Your task to perform on an android device: Open calendar and show me the first week of next month Image 0: 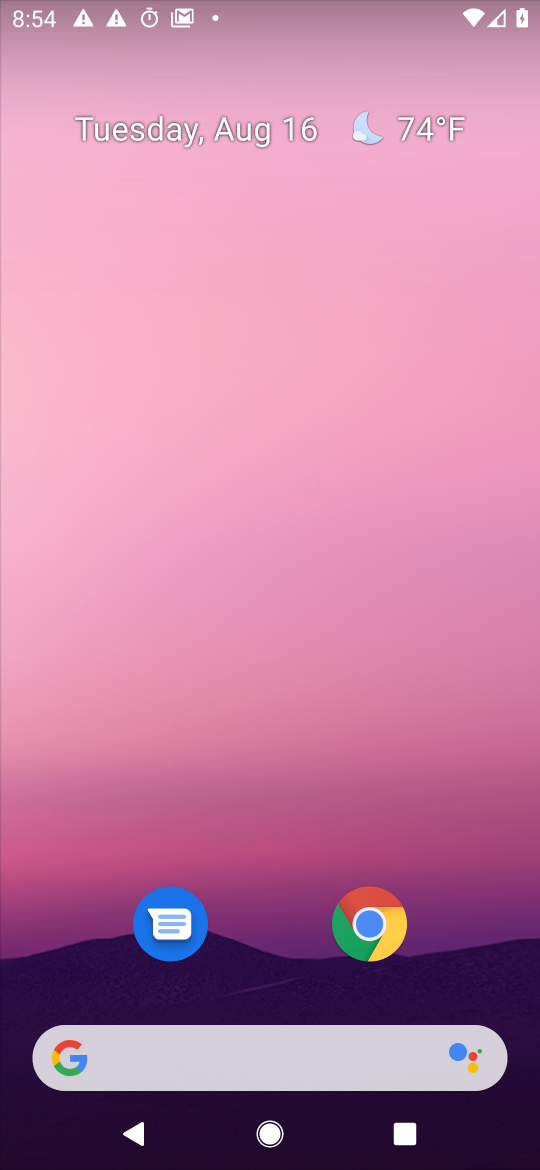
Step 0: drag from (284, 961) to (440, 46)
Your task to perform on an android device: Open calendar and show me the first week of next month Image 1: 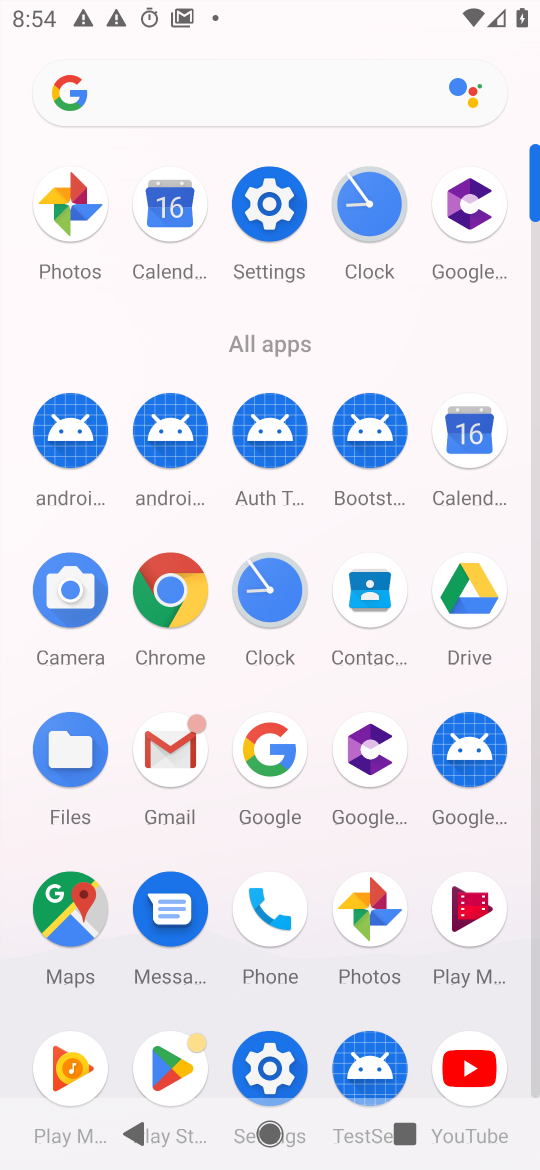
Step 1: click (478, 451)
Your task to perform on an android device: Open calendar and show me the first week of next month Image 2: 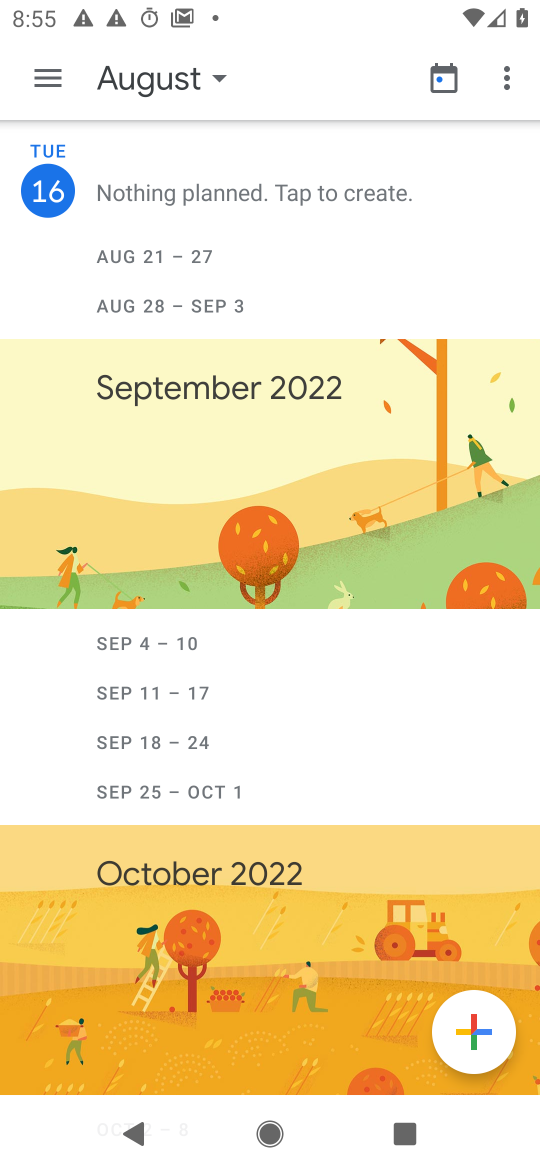
Step 2: click (192, 83)
Your task to perform on an android device: Open calendar and show me the first week of next month Image 3: 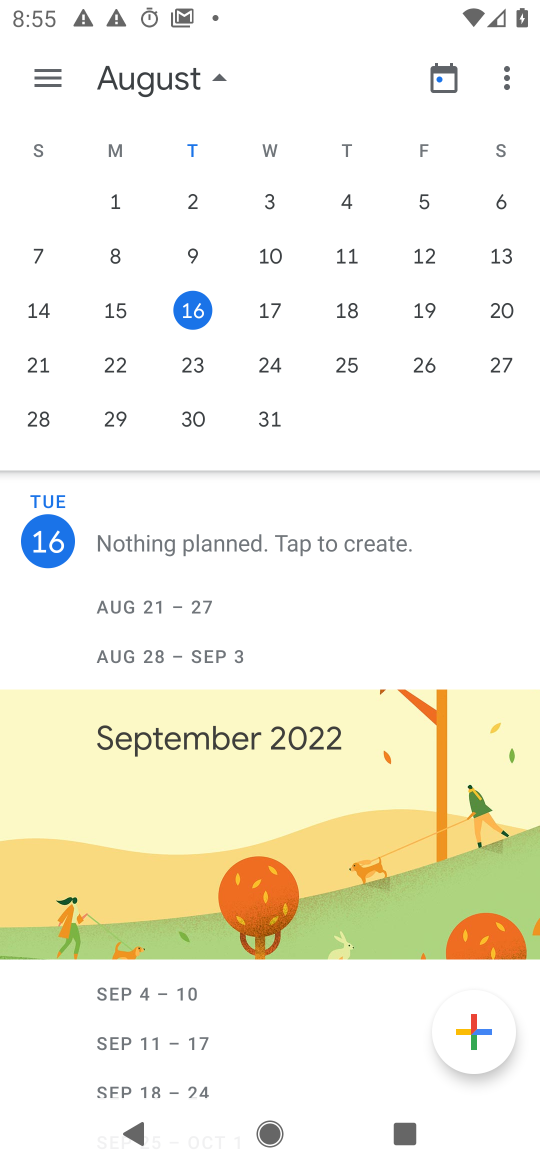
Step 3: drag from (499, 311) to (17, 315)
Your task to perform on an android device: Open calendar and show me the first week of next month Image 4: 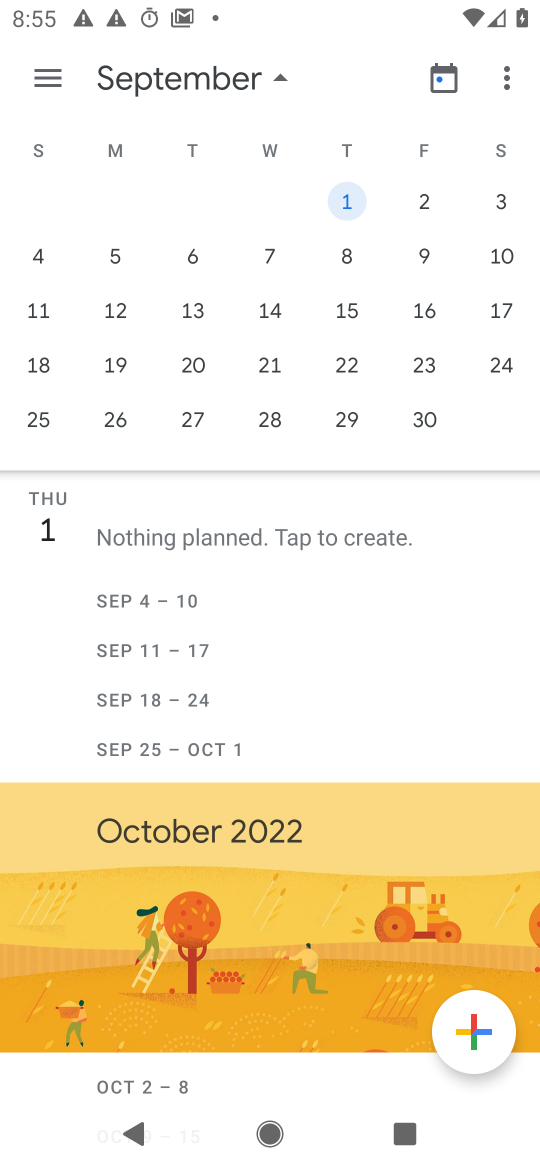
Step 4: click (352, 197)
Your task to perform on an android device: Open calendar and show me the first week of next month Image 5: 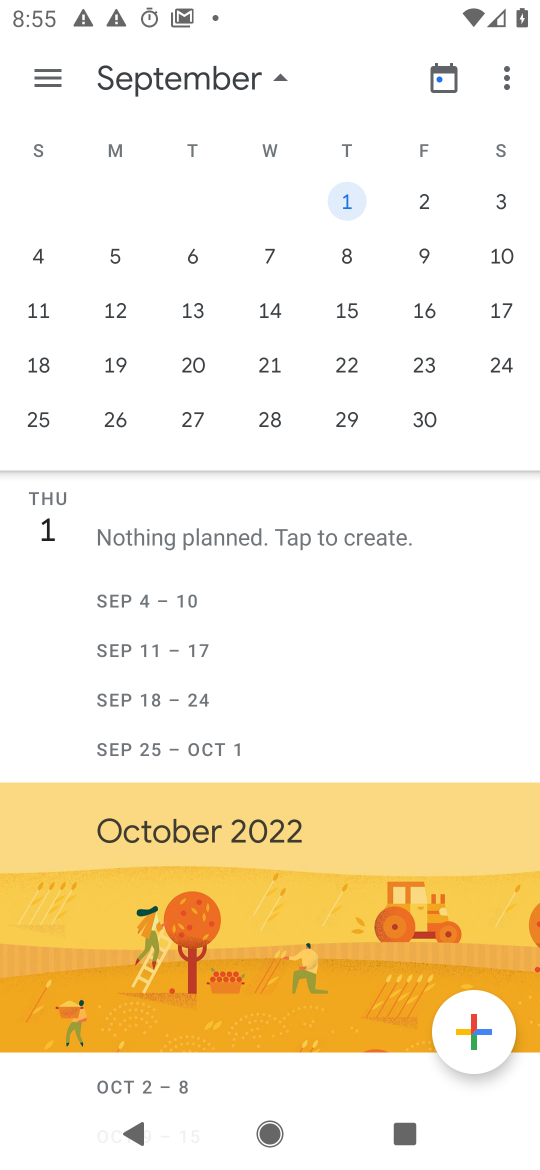
Step 5: task complete